Your task to perform on an android device: Open the calendar app, open the side menu, and click the "Day" option Image 0: 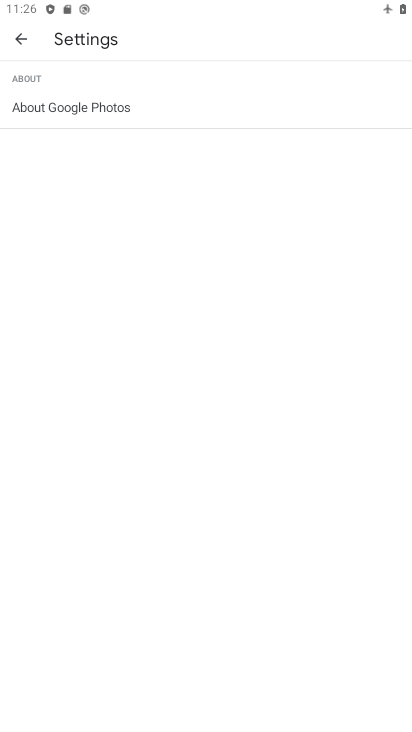
Step 0: click (171, 657)
Your task to perform on an android device: Open the calendar app, open the side menu, and click the "Day" option Image 1: 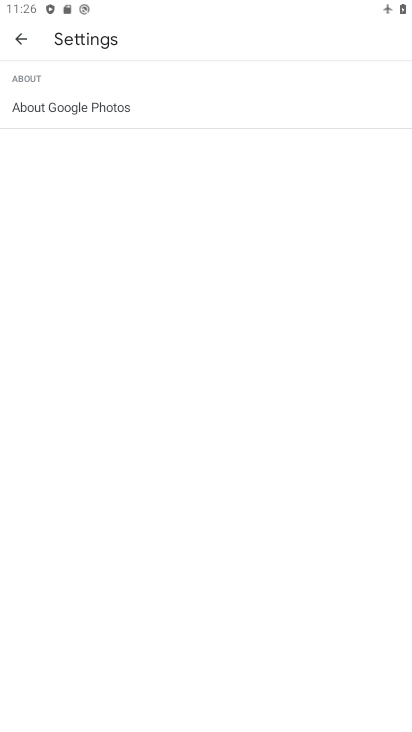
Step 1: press home button
Your task to perform on an android device: Open the calendar app, open the side menu, and click the "Day" option Image 2: 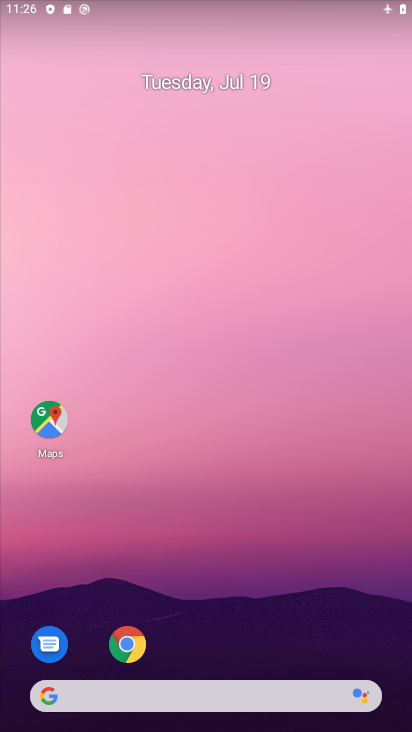
Step 2: drag from (158, 431) to (156, 215)
Your task to perform on an android device: Open the calendar app, open the side menu, and click the "Day" option Image 3: 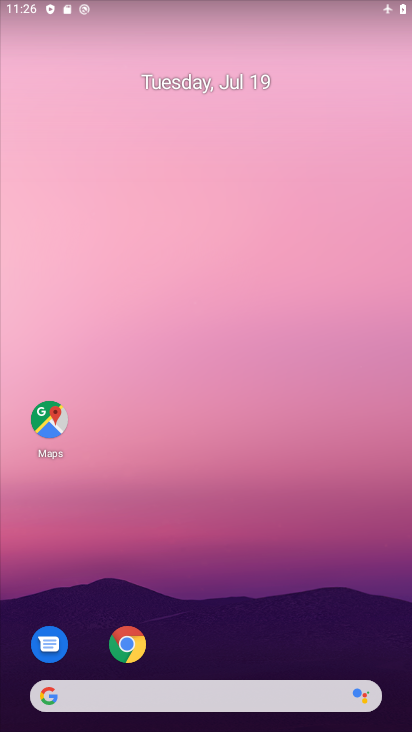
Step 3: drag from (190, 587) to (297, 187)
Your task to perform on an android device: Open the calendar app, open the side menu, and click the "Day" option Image 4: 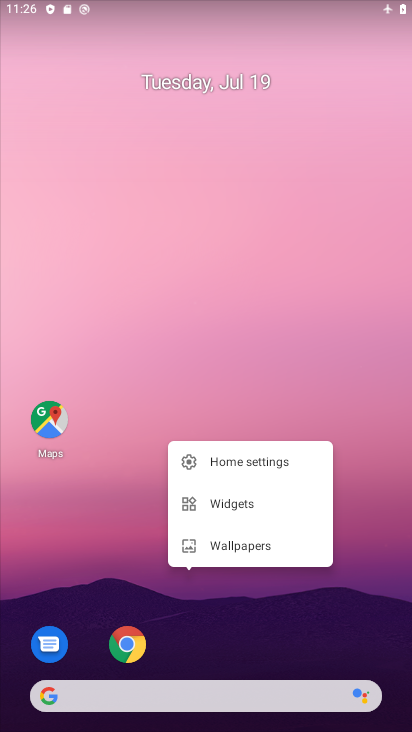
Step 4: click (192, 610)
Your task to perform on an android device: Open the calendar app, open the side menu, and click the "Day" option Image 5: 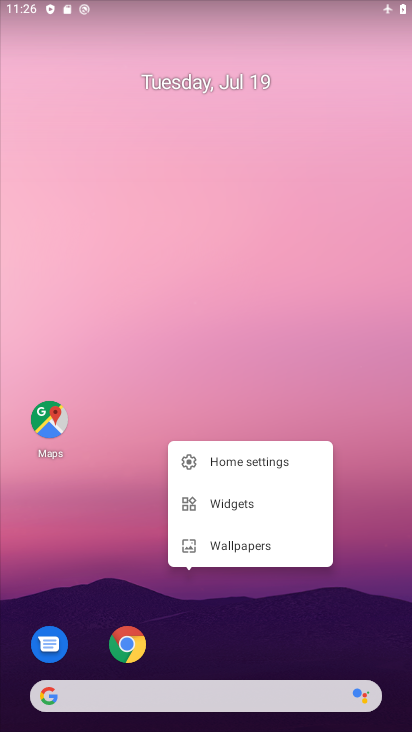
Step 5: drag from (172, 651) to (182, 81)
Your task to perform on an android device: Open the calendar app, open the side menu, and click the "Day" option Image 6: 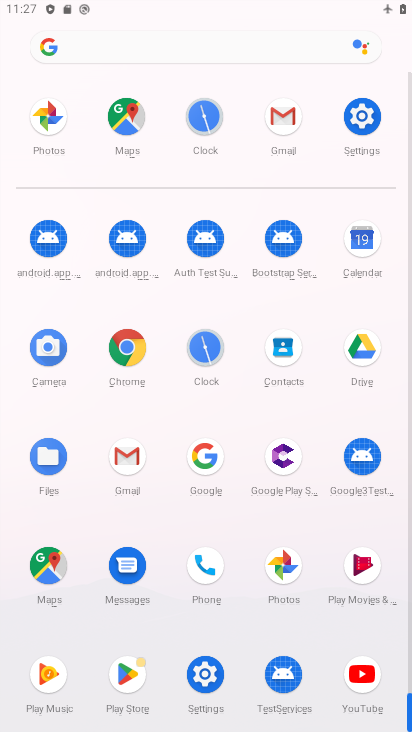
Step 6: click (351, 242)
Your task to perform on an android device: Open the calendar app, open the side menu, and click the "Day" option Image 7: 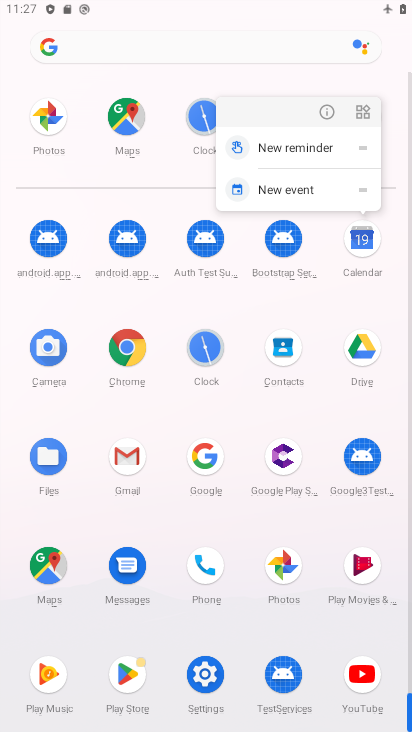
Step 7: click (325, 112)
Your task to perform on an android device: Open the calendar app, open the side menu, and click the "Day" option Image 8: 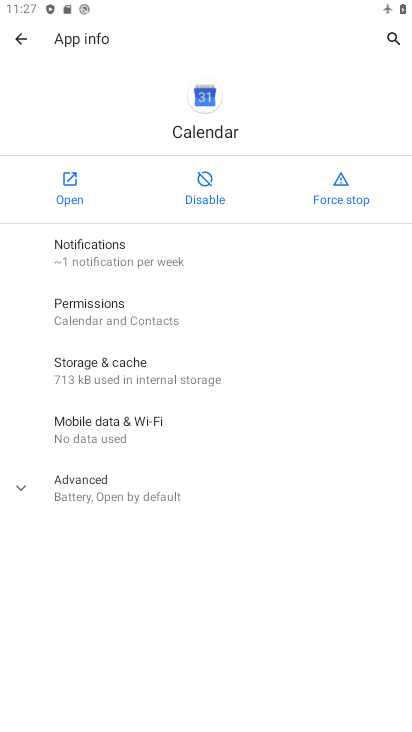
Step 8: click (51, 195)
Your task to perform on an android device: Open the calendar app, open the side menu, and click the "Day" option Image 9: 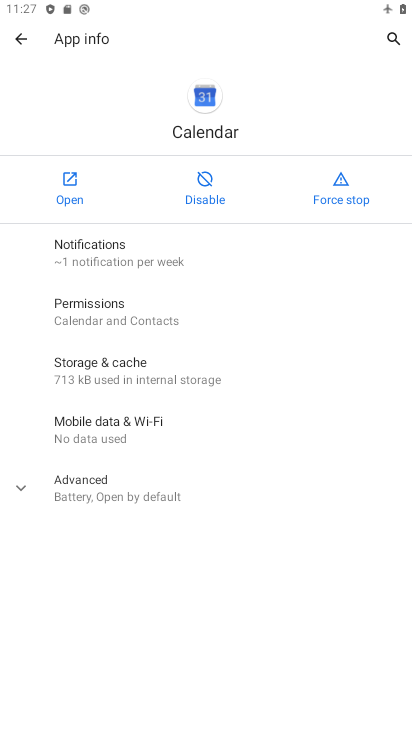
Step 9: click (51, 195)
Your task to perform on an android device: Open the calendar app, open the side menu, and click the "Day" option Image 10: 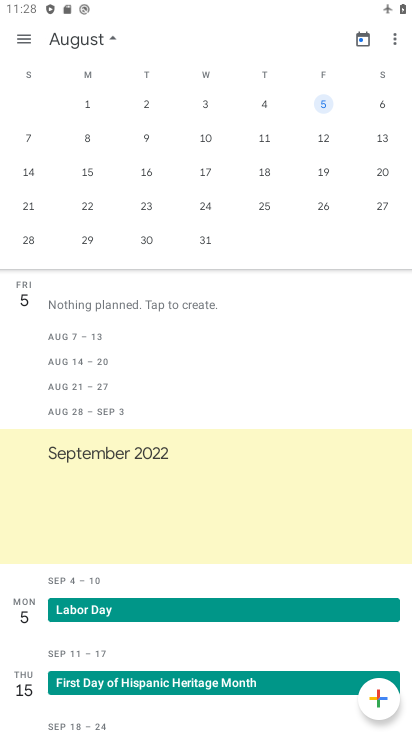
Step 10: click (29, 44)
Your task to perform on an android device: Open the calendar app, open the side menu, and click the "Day" option Image 11: 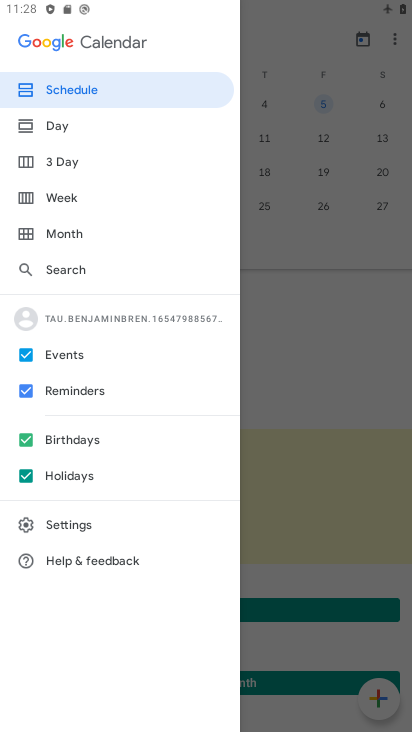
Step 11: click (67, 129)
Your task to perform on an android device: Open the calendar app, open the side menu, and click the "Day" option Image 12: 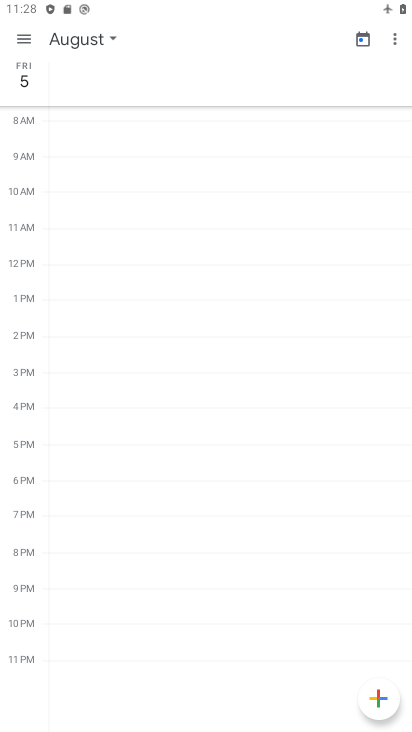
Step 12: task complete